Your task to perform on an android device: Go to CNN.com Image 0: 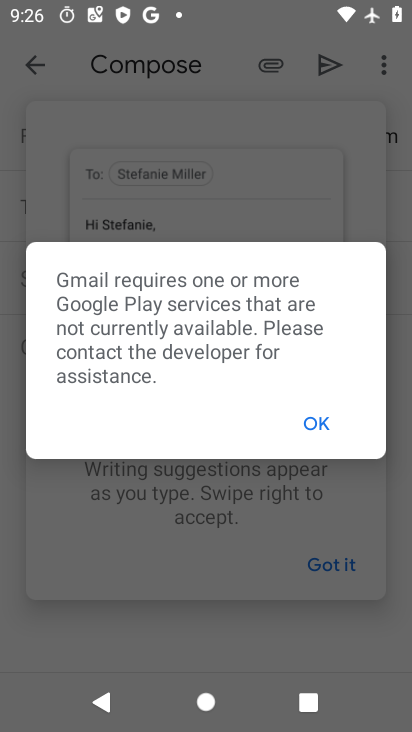
Step 0: press home button
Your task to perform on an android device: Go to CNN.com Image 1: 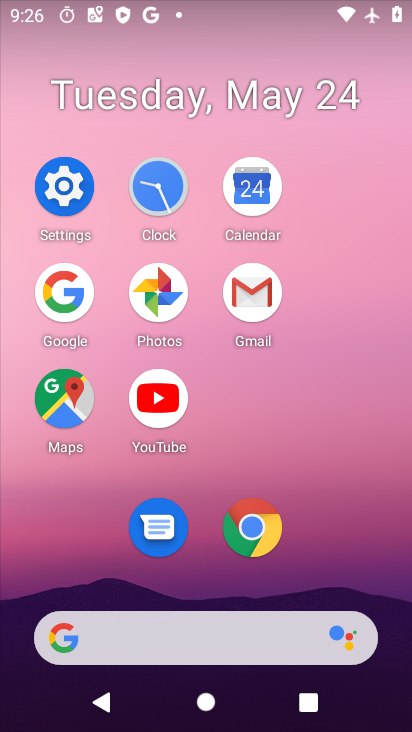
Step 1: click (229, 519)
Your task to perform on an android device: Go to CNN.com Image 2: 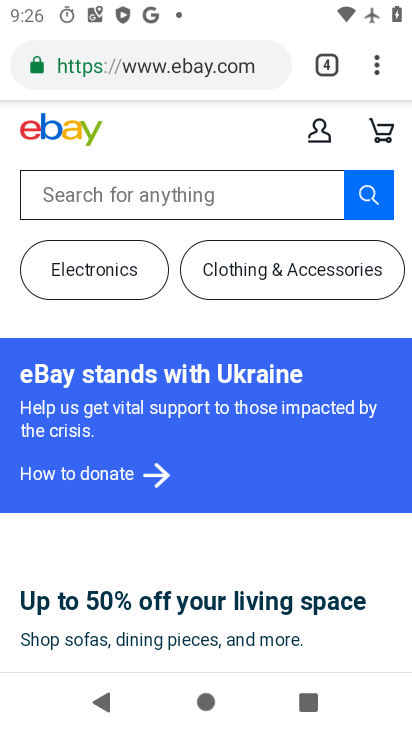
Step 2: click (341, 75)
Your task to perform on an android device: Go to CNN.com Image 3: 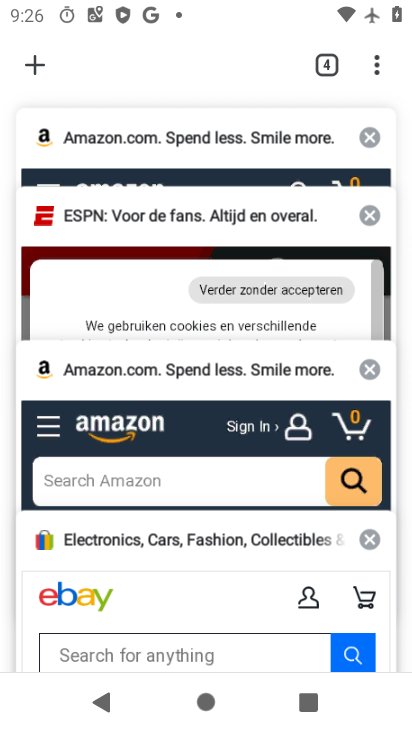
Step 3: drag from (179, 138) to (189, 495)
Your task to perform on an android device: Go to CNN.com Image 4: 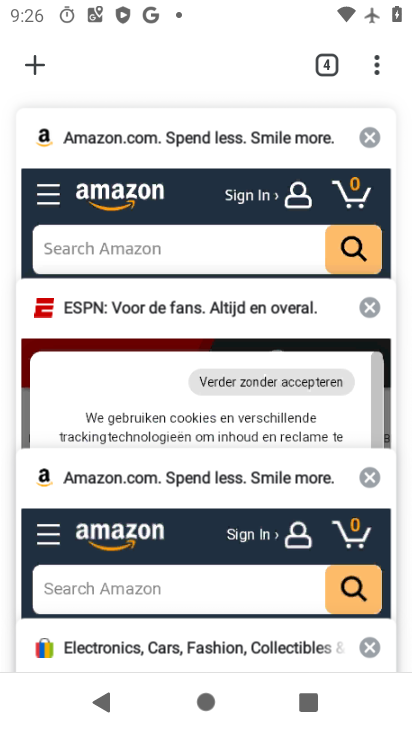
Step 4: click (48, 68)
Your task to perform on an android device: Go to CNN.com Image 5: 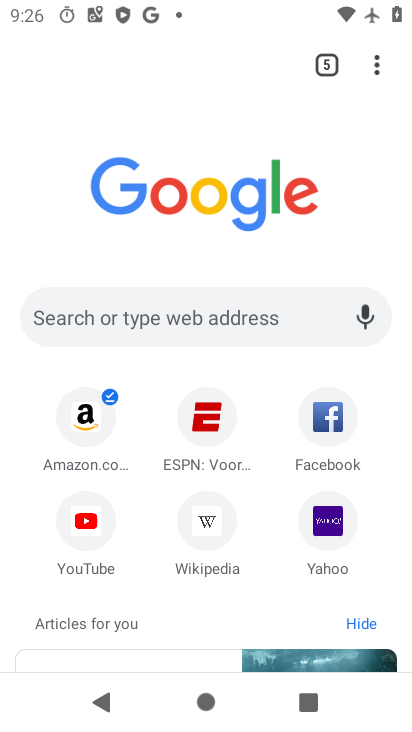
Step 5: click (199, 311)
Your task to perform on an android device: Go to CNN.com Image 6: 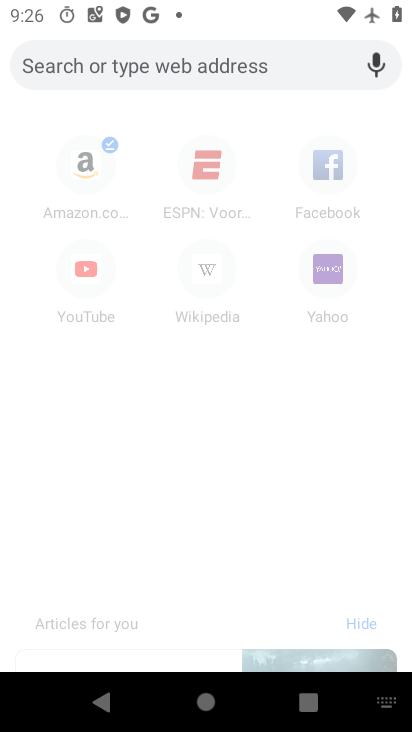
Step 6: type "cnn"
Your task to perform on an android device: Go to CNN.com Image 7: 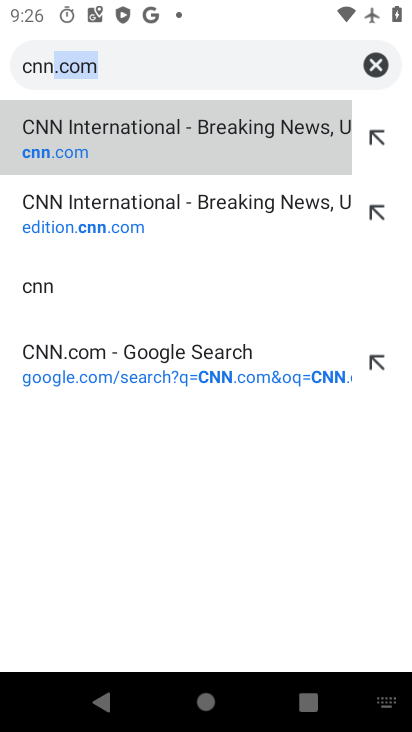
Step 7: click (147, 161)
Your task to perform on an android device: Go to CNN.com Image 8: 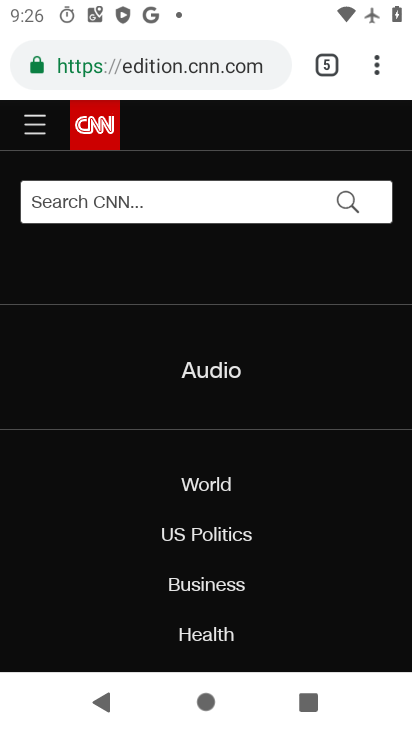
Step 8: task complete